Your task to perform on an android device: see tabs open on other devices in the chrome app Image 0: 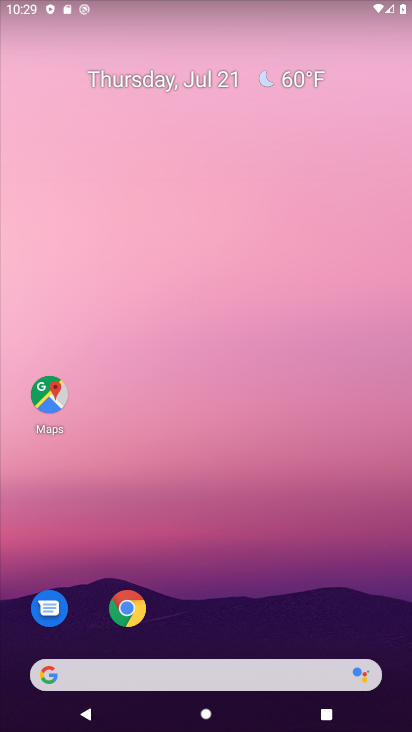
Step 0: drag from (227, 628) to (206, 69)
Your task to perform on an android device: see tabs open on other devices in the chrome app Image 1: 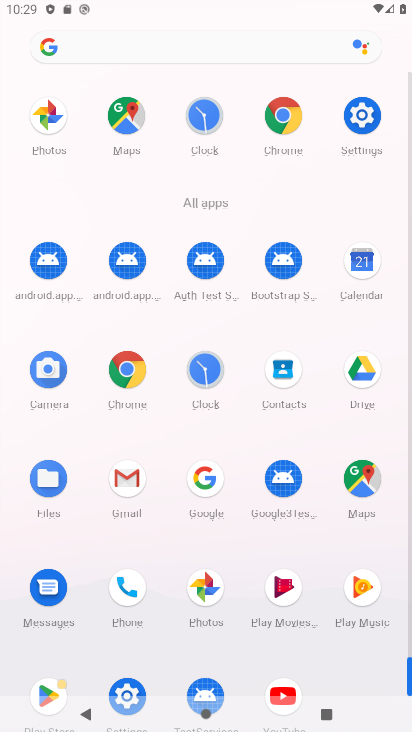
Step 1: click (134, 372)
Your task to perform on an android device: see tabs open on other devices in the chrome app Image 2: 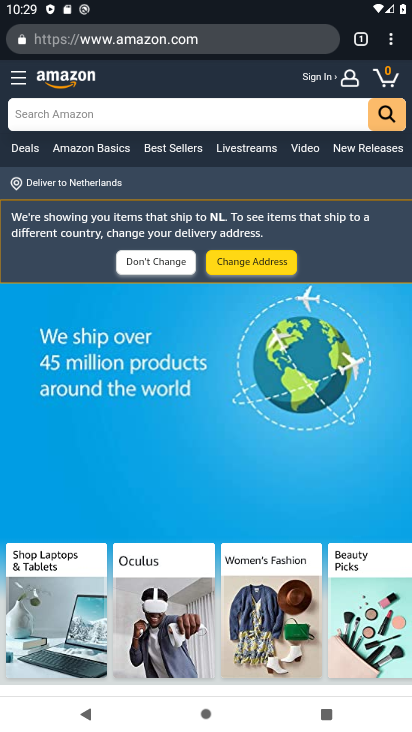
Step 2: click (394, 38)
Your task to perform on an android device: see tabs open on other devices in the chrome app Image 3: 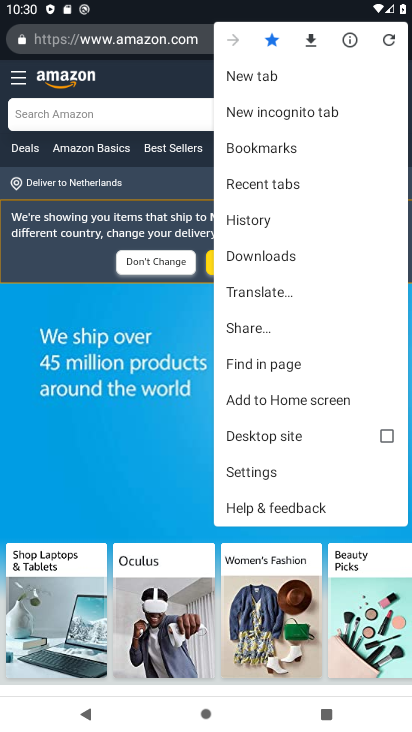
Step 3: click (264, 187)
Your task to perform on an android device: see tabs open on other devices in the chrome app Image 4: 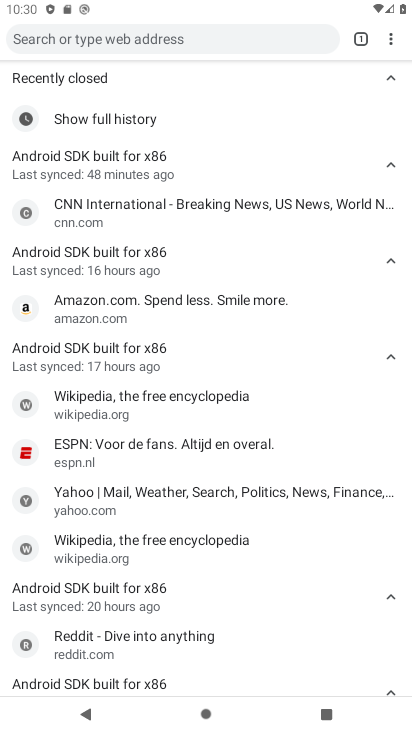
Step 4: task complete